Your task to perform on an android device: Open Google Chrome Image 0: 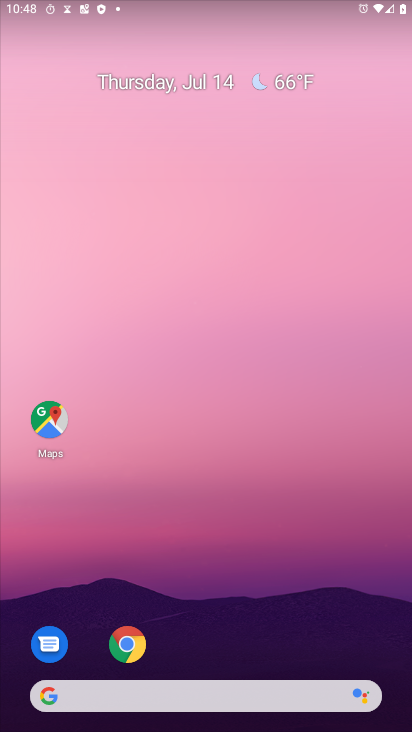
Step 0: drag from (238, 605) to (159, 29)
Your task to perform on an android device: Open Google Chrome Image 1: 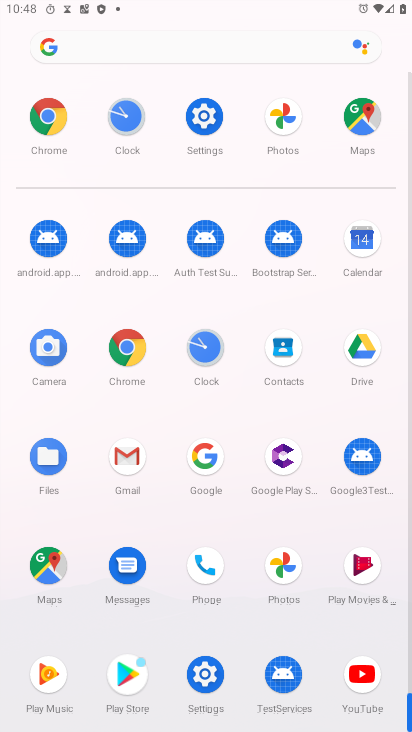
Step 1: click (120, 344)
Your task to perform on an android device: Open Google Chrome Image 2: 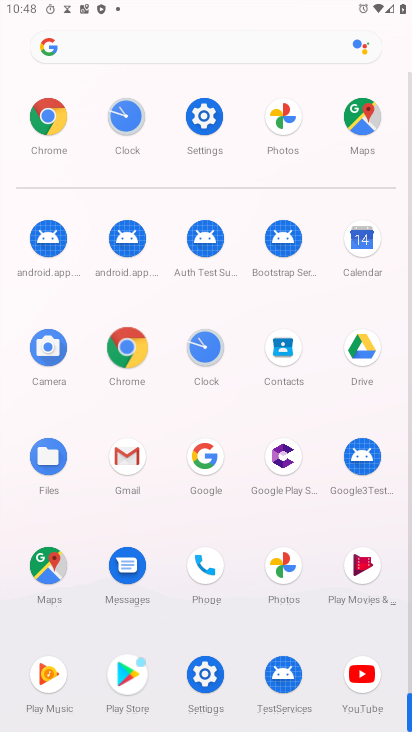
Step 2: click (115, 343)
Your task to perform on an android device: Open Google Chrome Image 3: 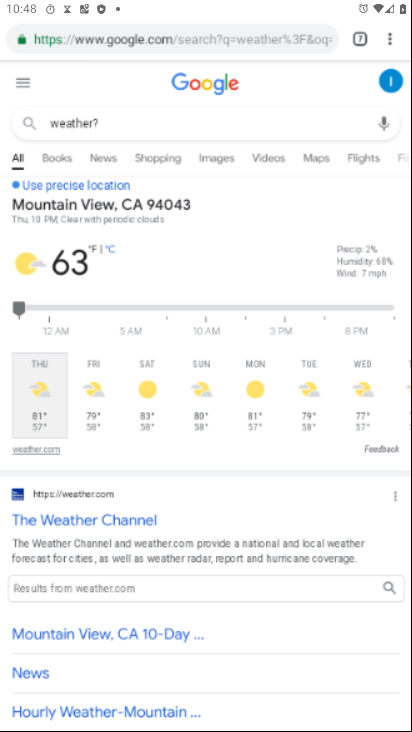
Step 3: click (123, 348)
Your task to perform on an android device: Open Google Chrome Image 4: 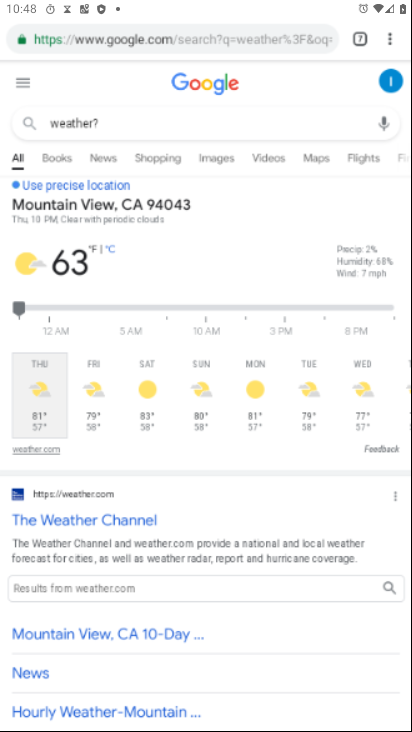
Step 4: click (123, 348)
Your task to perform on an android device: Open Google Chrome Image 5: 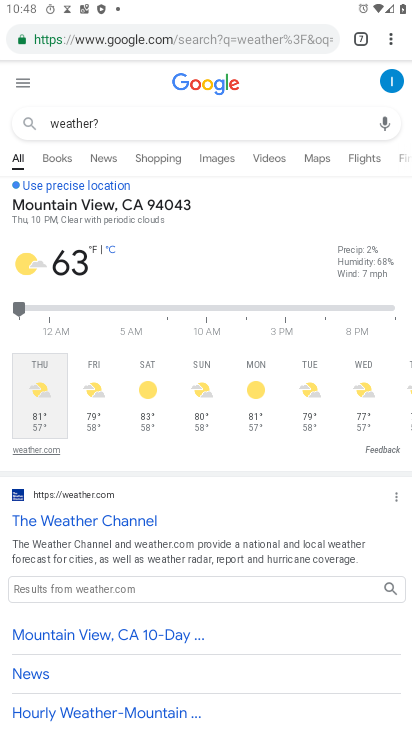
Step 5: drag from (389, 21) to (149, 254)
Your task to perform on an android device: Open Google Chrome Image 6: 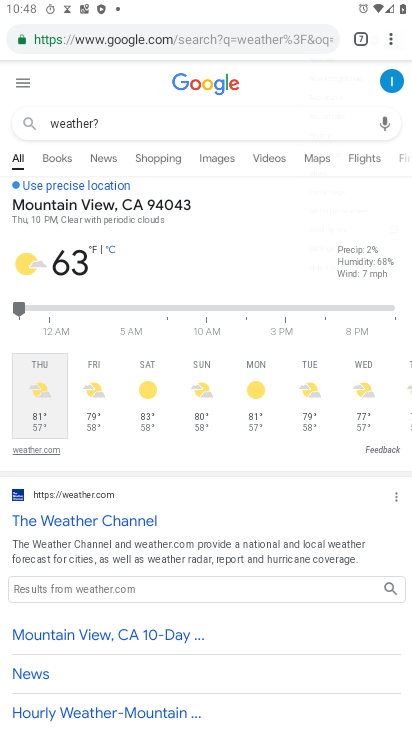
Step 6: click (167, 234)
Your task to perform on an android device: Open Google Chrome Image 7: 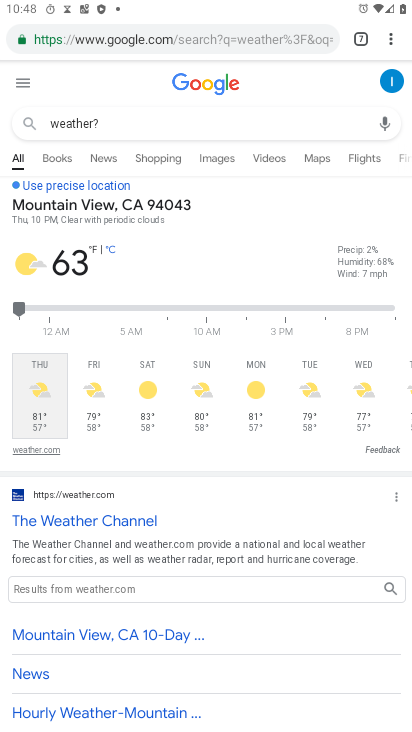
Step 7: click (201, 226)
Your task to perform on an android device: Open Google Chrome Image 8: 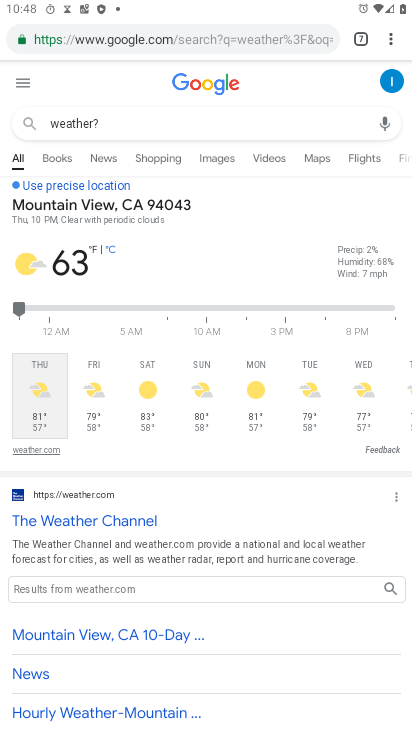
Step 8: task complete